Your task to perform on an android device: turn on the 12-hour format for clock Image 0: 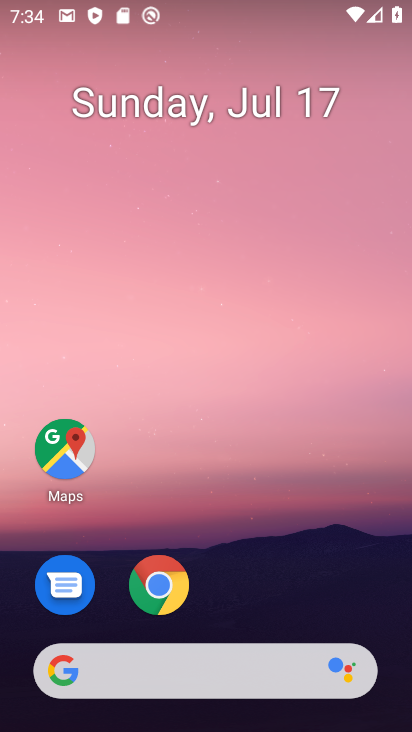
Step 0: drag from (212, 641) to (301, 120)
Your task to perform on an android device: turn on the 12-hour format for clock Image 1: 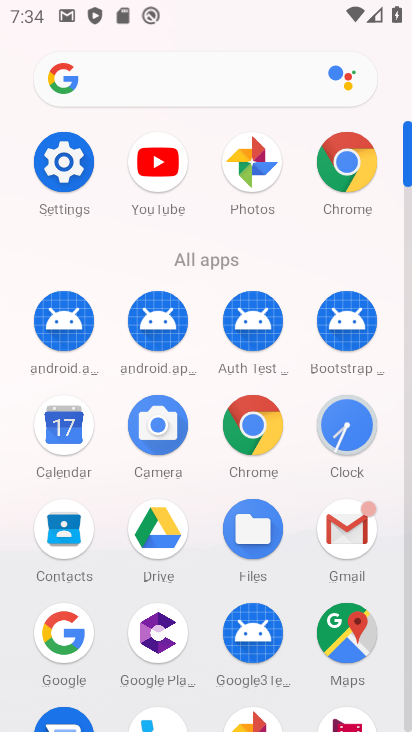
Step 1: click (355, 425)
Your task to perform on an android device: turn on the 12-hour format for clock Image 2: 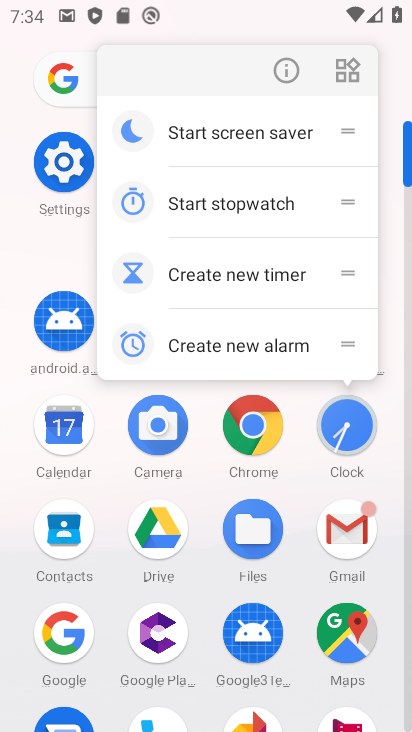
Step 2: click (351, 429)
Your task to perform on an android device: turn on the 12-hour format for clock Image 3: 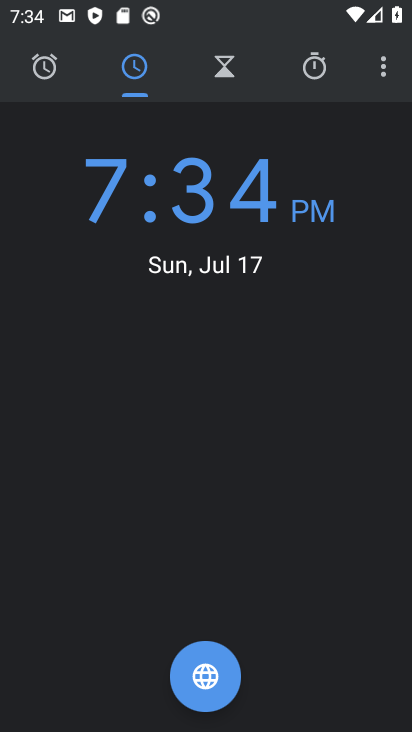
Step 3: click (383, 69)
Your task to perform on an android device: turn on the 12-hour format for clock Image 4: 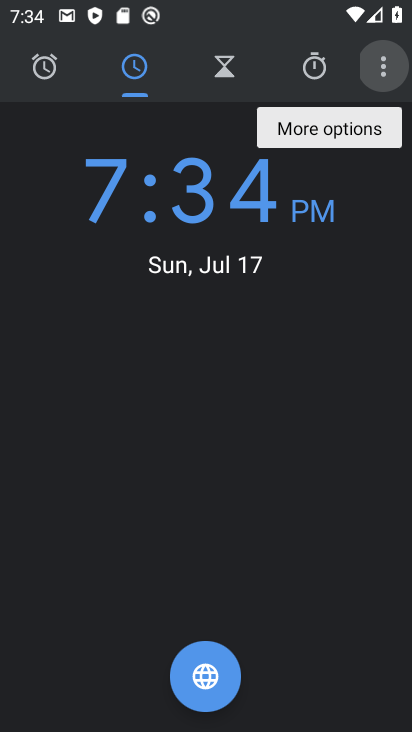
Step 4: click (383, 69)
Your task to perform on an android device: turn on the 12-hour format for clock Image 5: 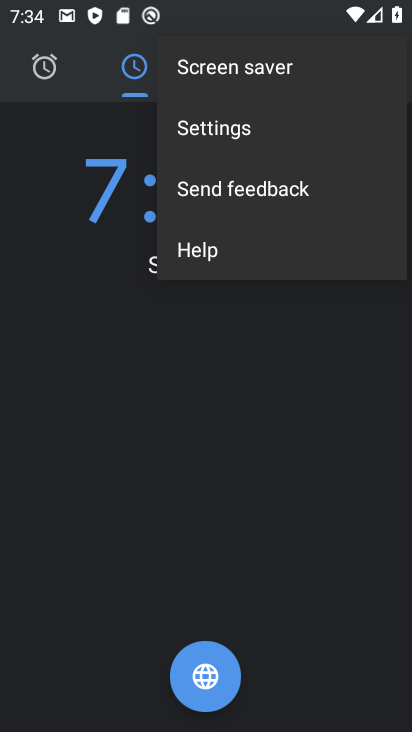
Step 5: click (229, 133)
Your task to perform on an android device: turn on the 12-hour format for clock Image 6: 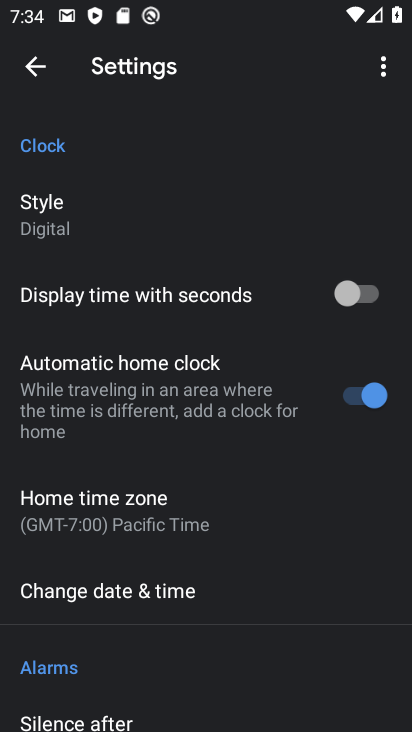
Step 6: click (158, 574)
Your task to perform on an android device: turn on the 12-hour format for clock Image 7: 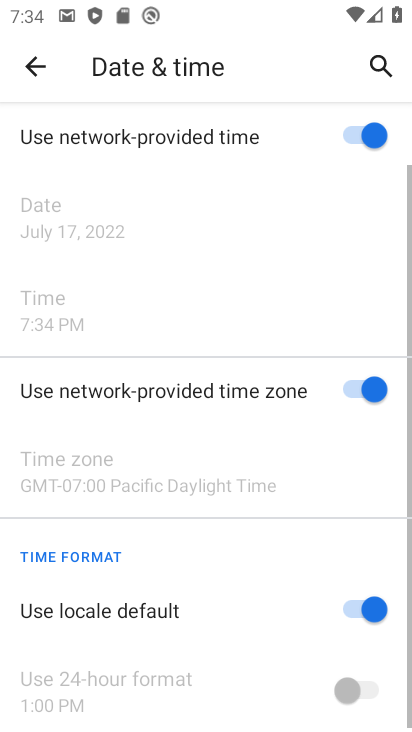
Step 7: task complete